Your task to perform on an android device: Do I have any events today? Image 0: 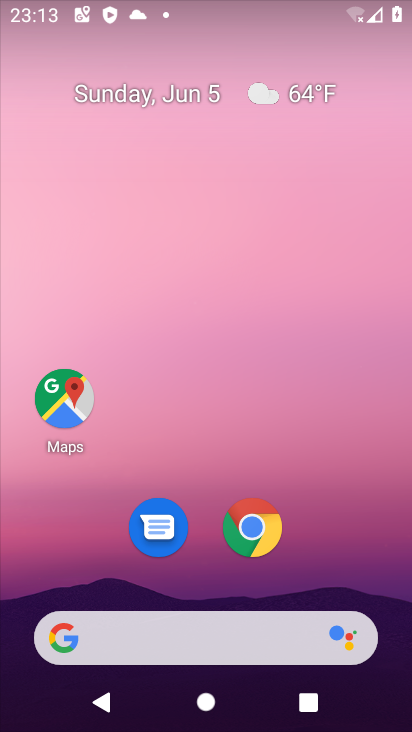
Step 0: drag from (347, 560) to (311, 170)
Your task to perform on an android device: Do I have any events today? Image 1: 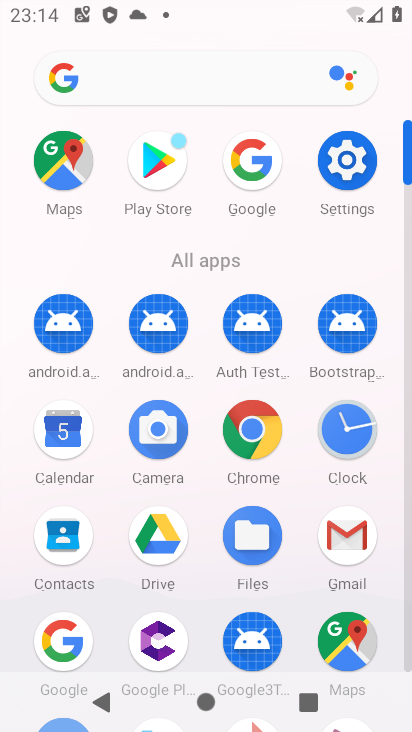
Step 1: click (49, 436)
Your task to perform on an android device: Do I have any events today? Image 2: 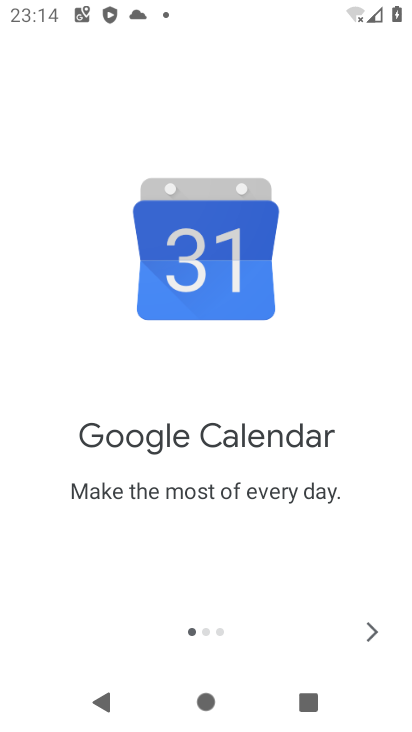
Step 2: click (380, 620)
Your task to perform on an android device: Do I have any events today? Image 3: 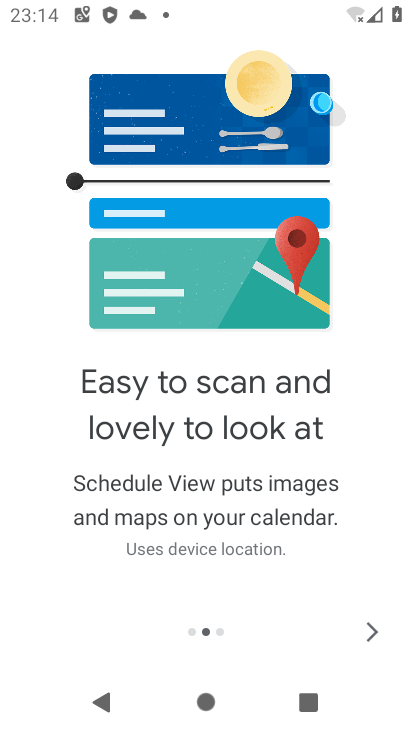
Step 3: click (380, 620)
Your task to perform on an android device: Do I have any events today? Image 4: 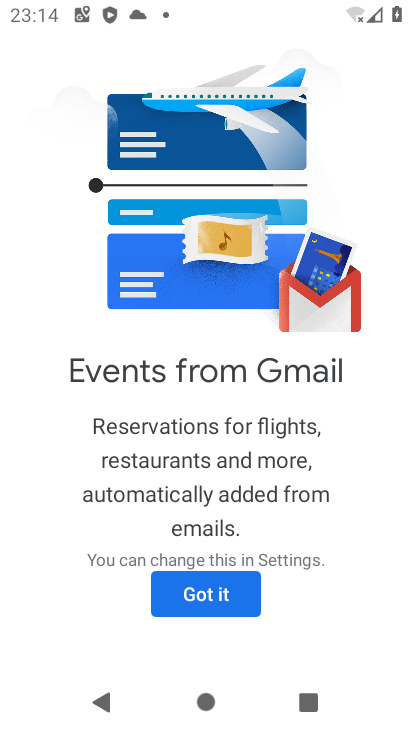
Step 4: click (198, 596)
Your task to perform on an android device: Do I have any events today? Image 5: 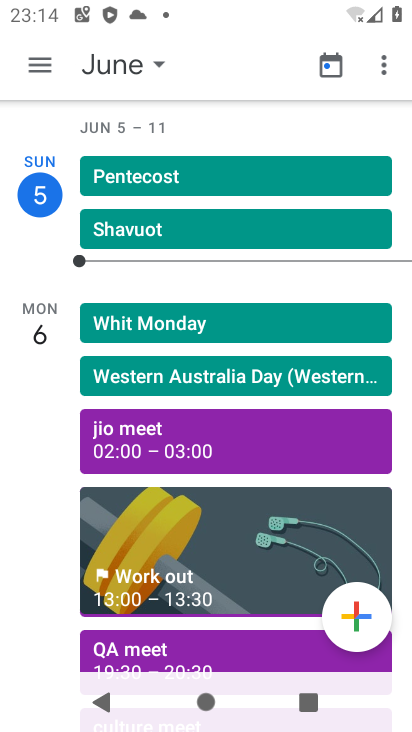
Step 5: click (37, 326)
Your task to perform on an android device: Do I have any events today? Image 6: 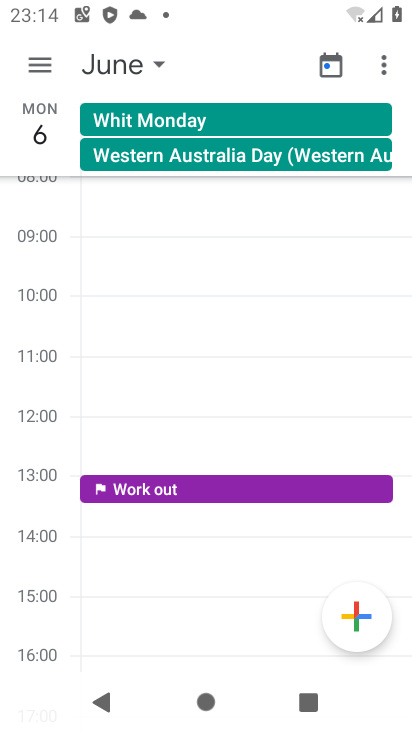
Step 6: task complete